Your task to perform on an android device: open app "Gmail" (install if not already installed) and enter user name: "undecidable@inbox.com" and password: "discouraging" Image 0: 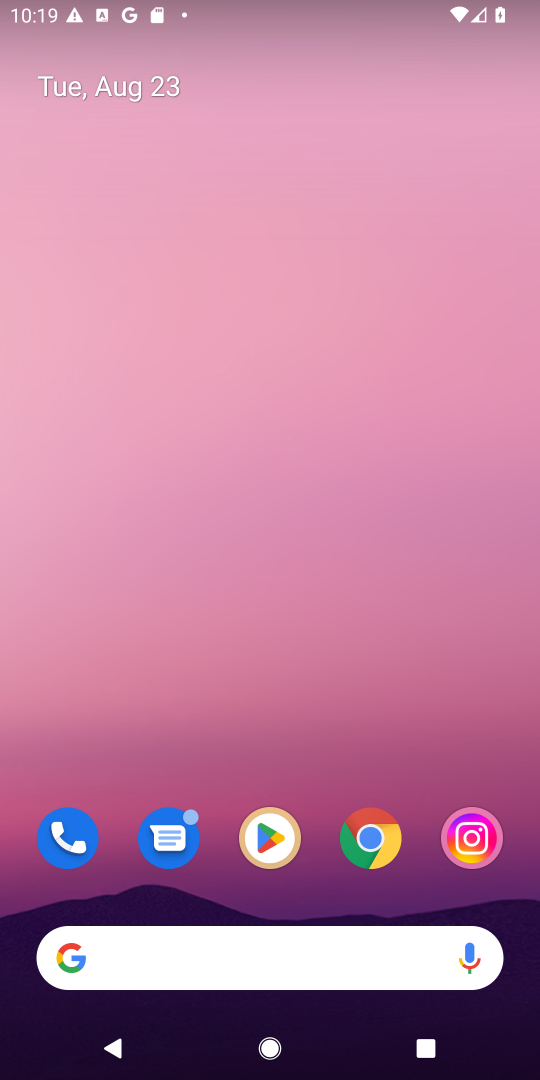
Step 0: click (276, 827)
Your task to perform on an android device: open app "Gmail" (install if not already installed) and enter user name: "undecidable@inbox.com" and password: "discouraging" Image 1: 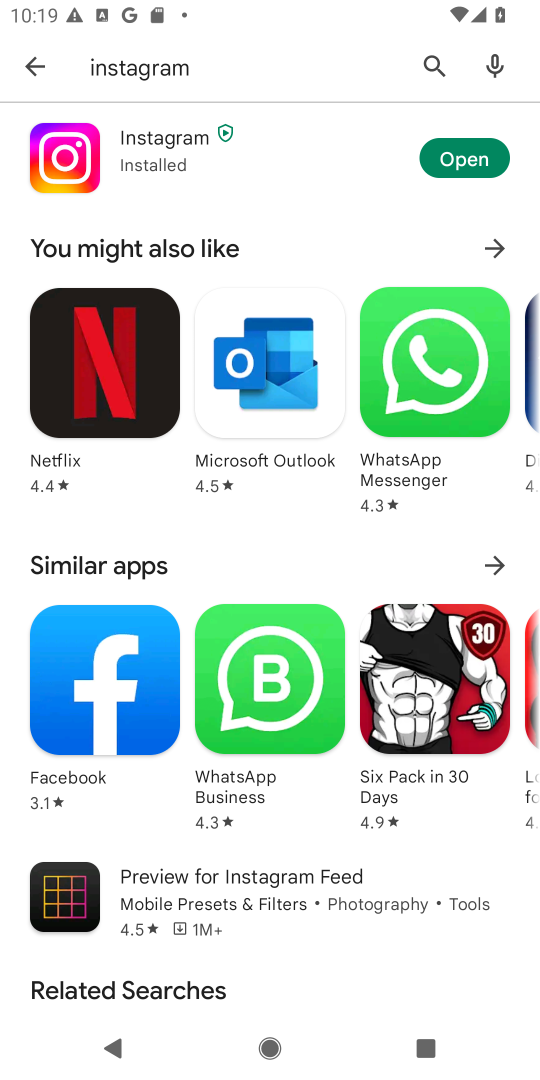
Step 1: click (439, 49)
Your task to perform on an android device: open app "Gmail" (install if not already installed) and enter user name: "undecidable@inbox.com" and password: "discouraging" Image 2: 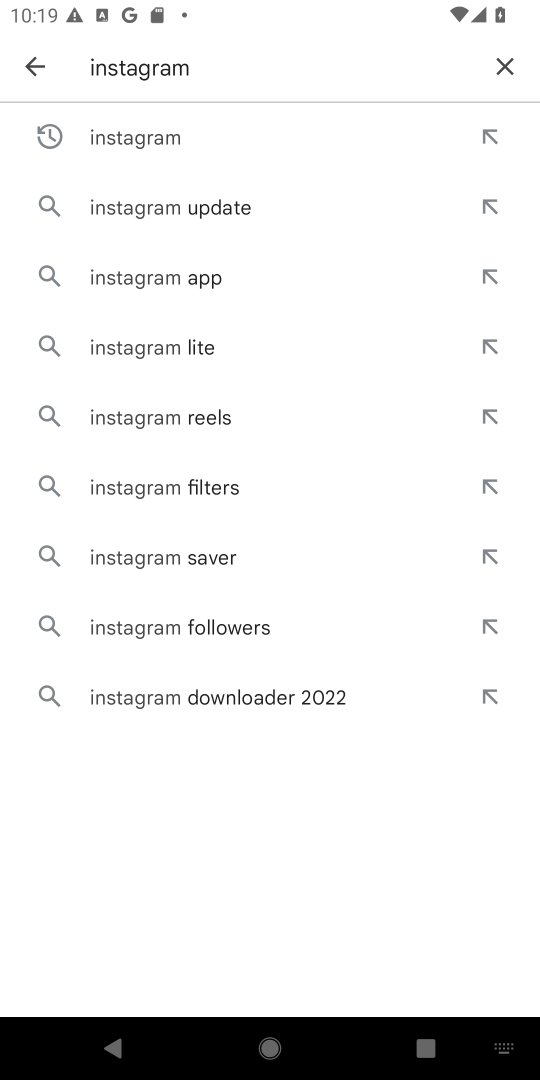
Step 2: click (500, 60)
Your task to perform on an android device: open app "Gmail" (install if not already installed) and enter user name: "undecidable@inbox.com" and password: "discouraging" Image 3: 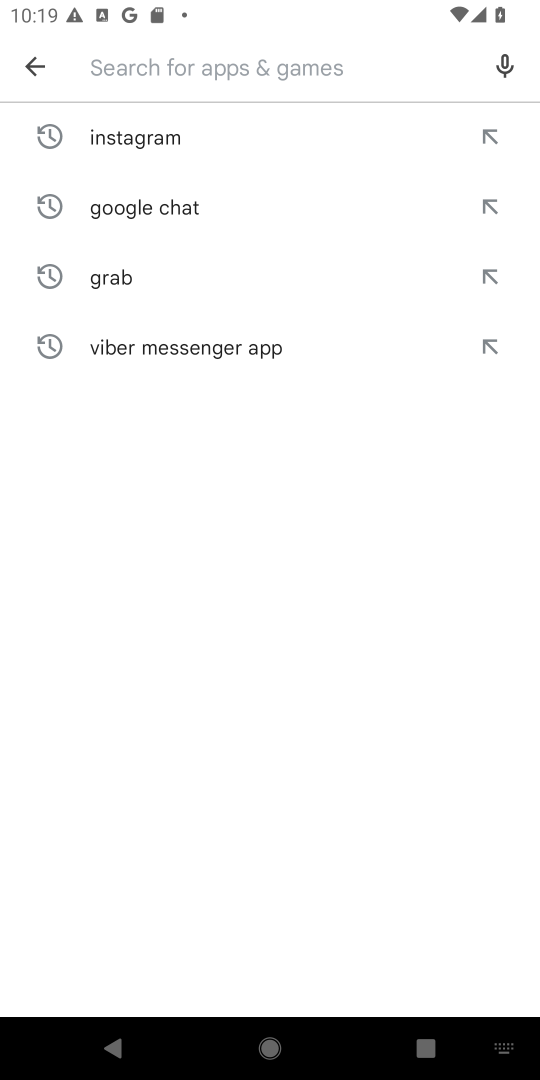
Step 3: type "Gmail"
Your task to perform on an android device: open app "Gmail" (install if not already installed) and enter user name: "undecidable@inbox.com" and password: "discouraging" Image 4: 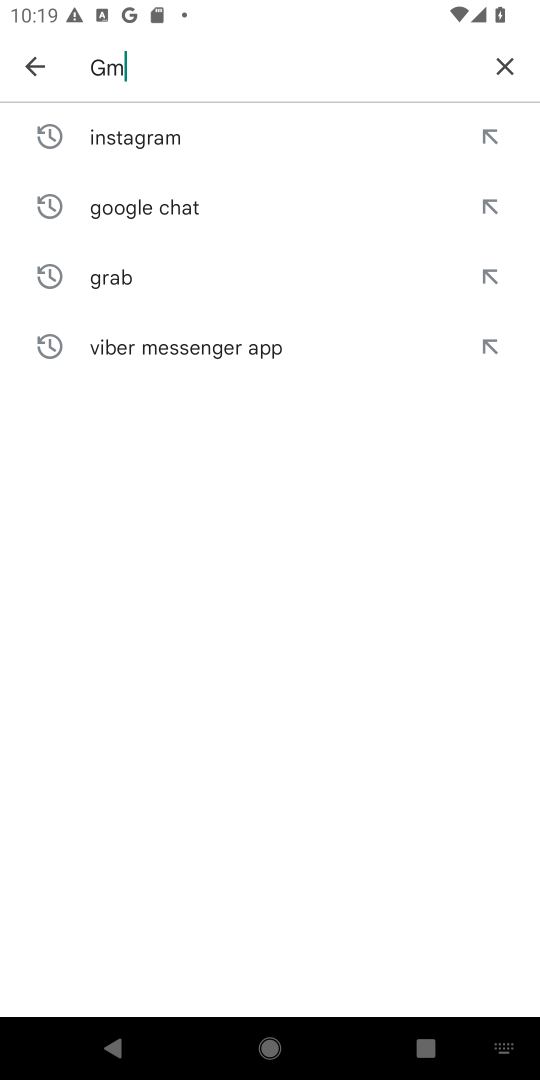
Step 4: type ""
Your task to perform on an android device: open app "Gmail" (install if not already installed) and enter user name: "undecidable@inbox.com" and password: "discouraging" Image 5: 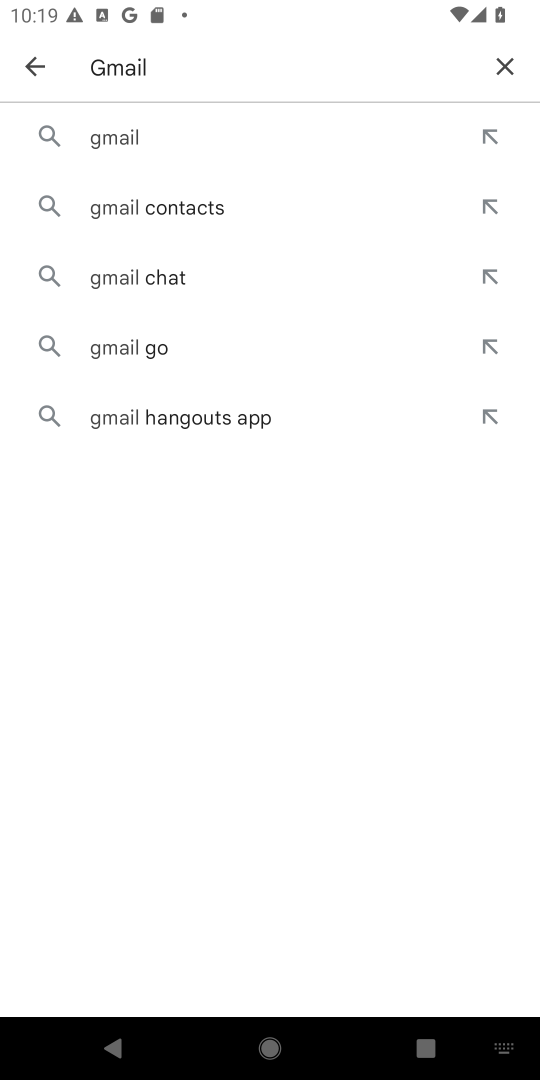
Step 5: click (158, 136)
Your task to perform on an android device: open app "Gmail" (install if not already installed) and enter user name: "undecidable@inbox.com" and password: "discouraging" Image 6: 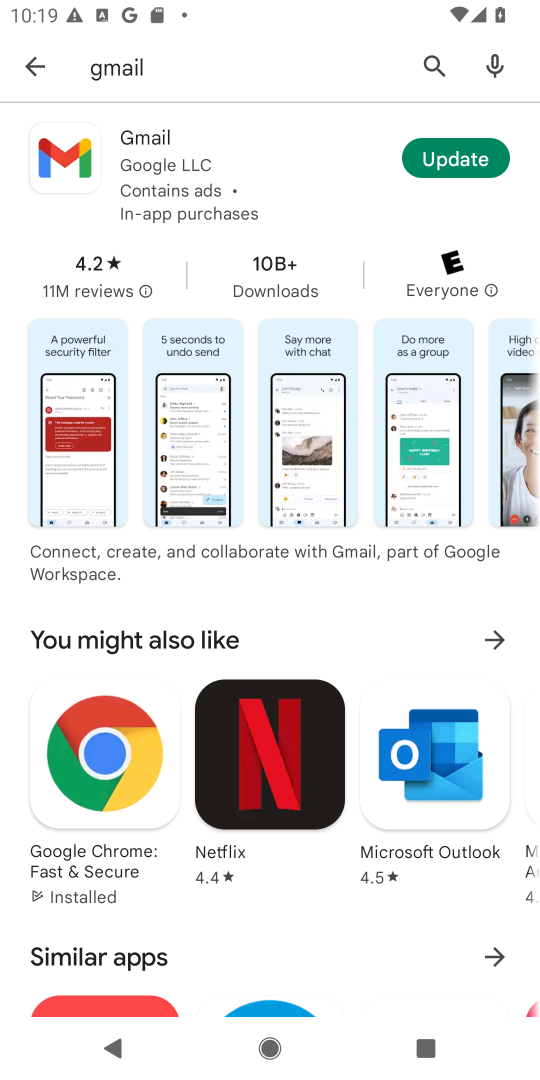
Step 6: click (331, 173)
Your task to perform on an android device: open app "Gmail" (install if not already installed) and enter user name: "undecidable@inbox.com" and password: "discouraging" Image 7: 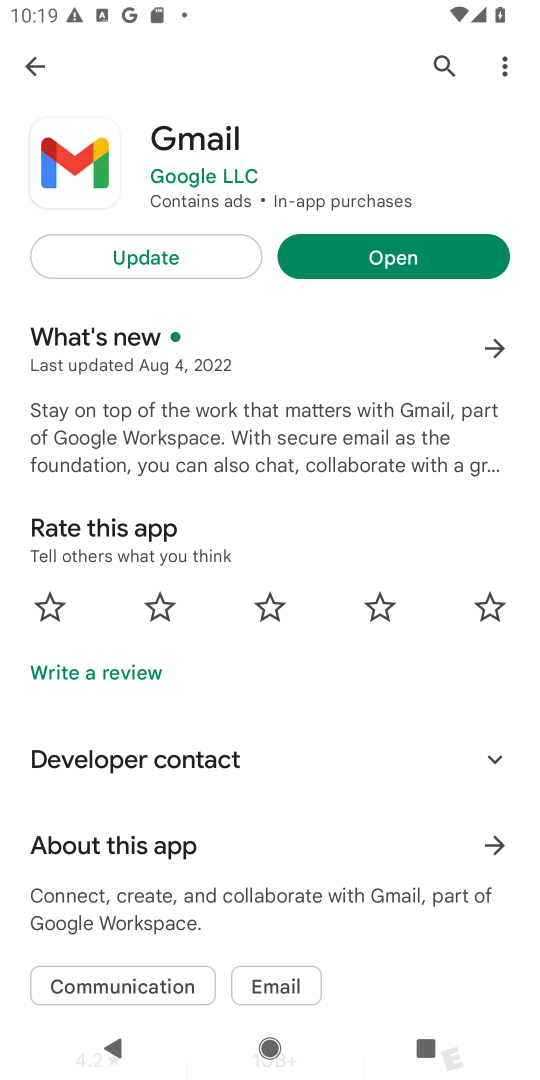
Step 7: click (443, 244)
Your task to perform on an android device: open app "Gmail" (install if not already installed) and enter user name: "undecidable@inbox.com" and password: "discouraging" Image 8: 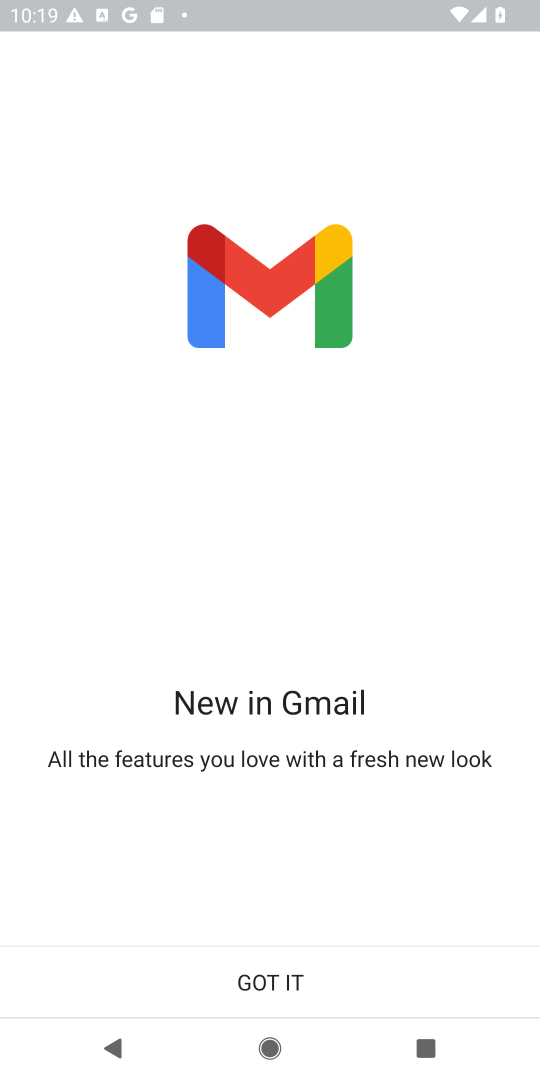
Step 8: click (305, 962)
Your task to perform on an android device: open app "Gmail" (install if not already installed) and enter user name: "undecidable@inbox.com" and password: "discouraging" Image 9: 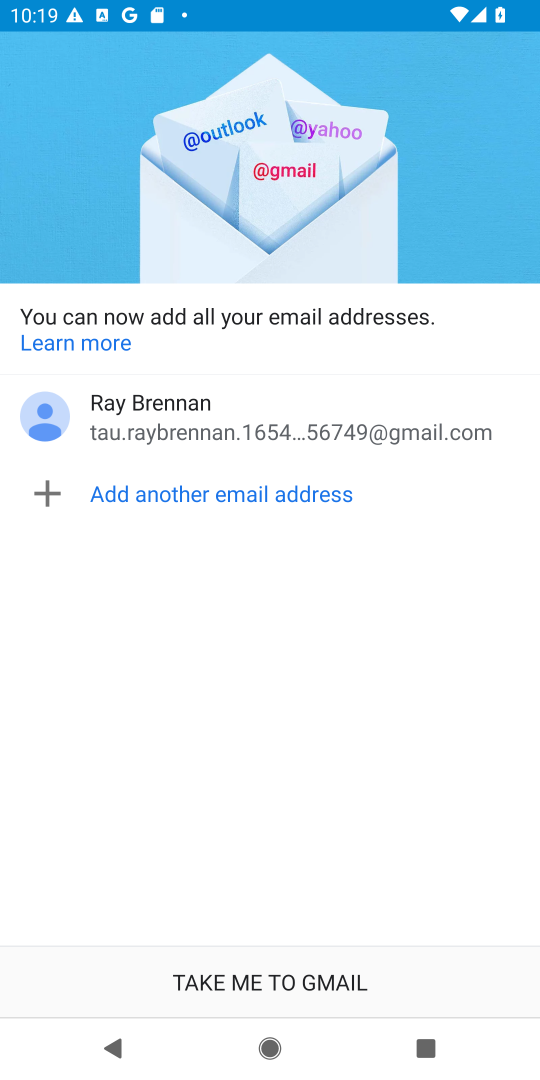
Step 9: click (348, 945)
Your task to perform on an android device: open app "Gmail" (install if not already installed) and enter user name: "undecidable@inbox.com" and password: "discouraging" Image 10: 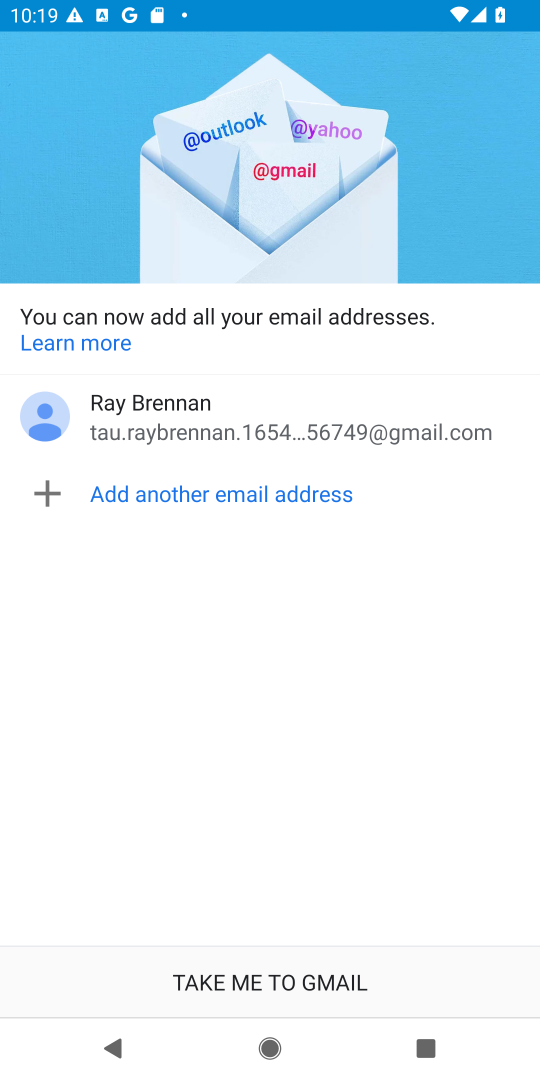
Step 10: click (348, 948)
Your task to perform on an android device: open app "Gmail" (install if not already installed) and enter user name: "undecidable@inbox.com" and password: "discouraging" Image 11: 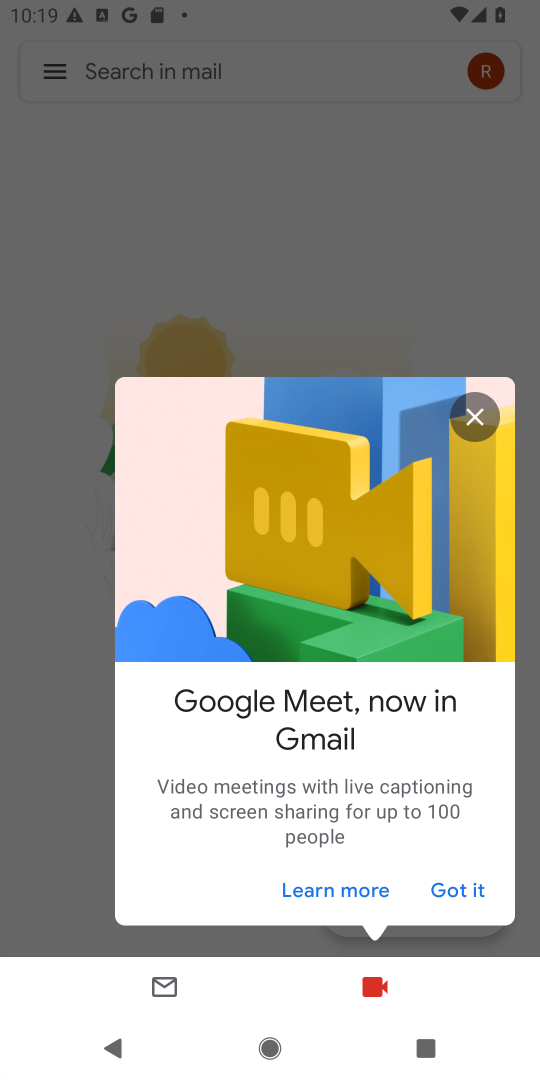
Step 11: task complete